Your task to perform on an android device: open a bookmark in the chrome app Image 0: 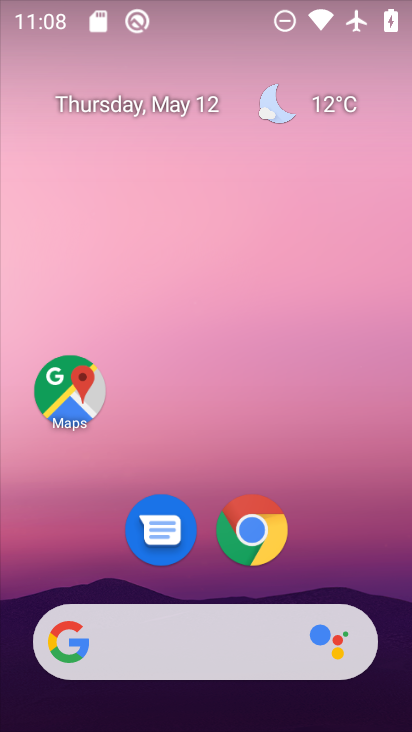
Step 0: click (246, 544)
Your task to perform on an android device: open a bookmark in the chrome app Image 1: 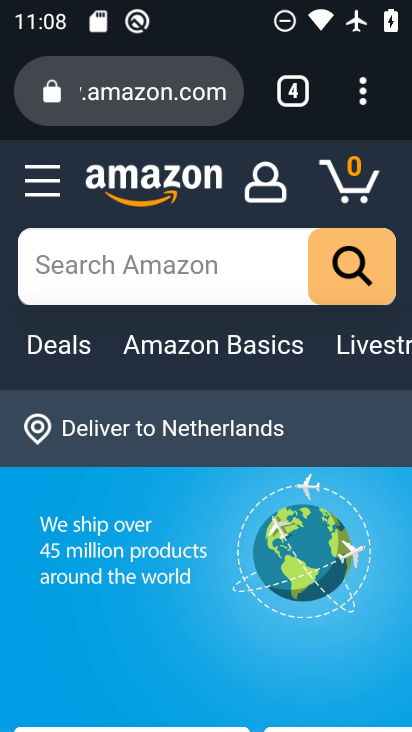
Step 1: task complete